Your task to perform on an android device: turn off location history Image 0: 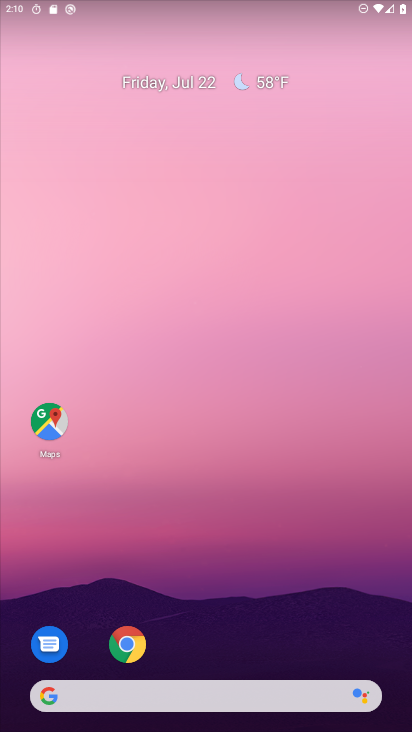
Step 0: drag from (210, 649) to (221, 265)
Your task to perform on an android device: turn off location history Image 1: 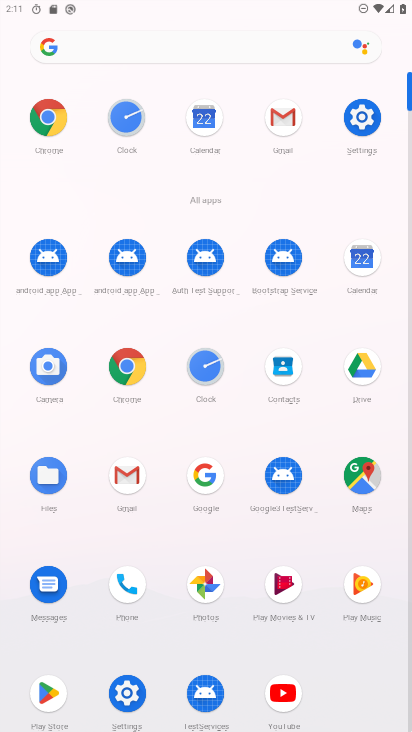
Step 1: click (354, 121)
Your task to perform on an android device: turn off location history Image 2: 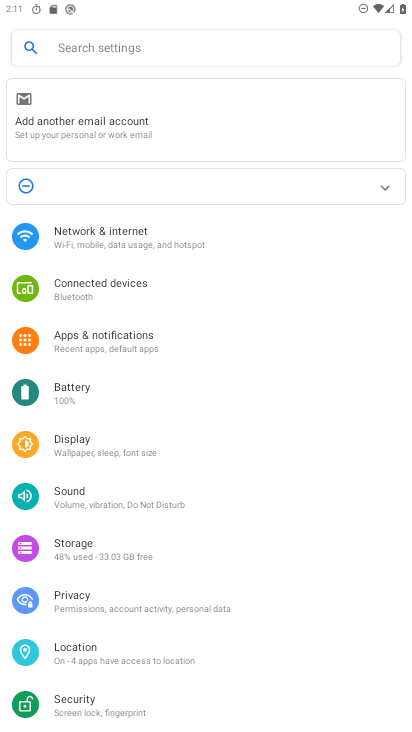
Step 2: click (86, 658)
Your task to perform on an android device: turn off location history Image 3: 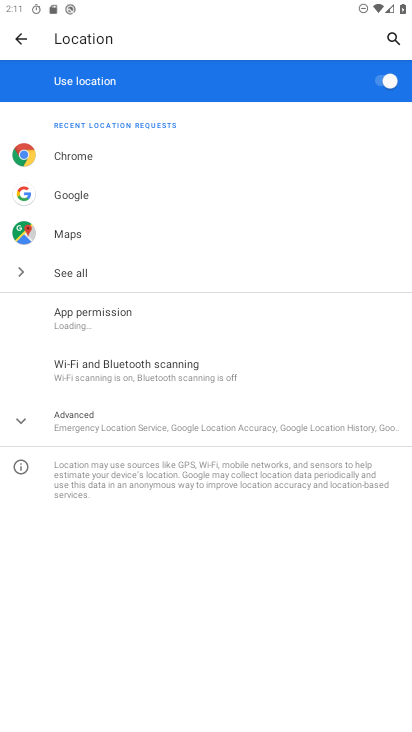
Step 3: click (154, 422)
Your task to perform on an android device: turn off location history Image 4: 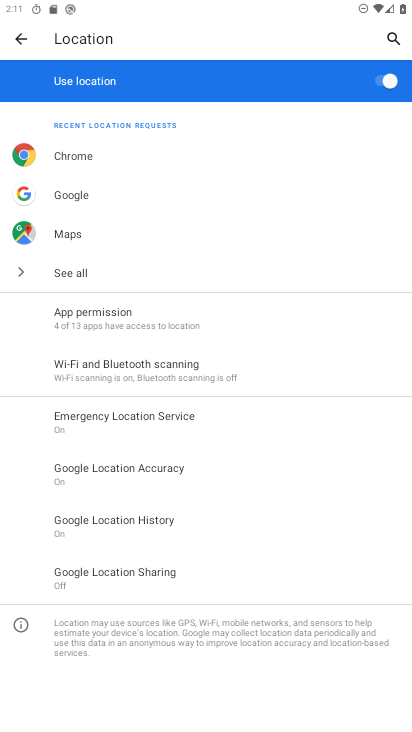
Step 4: click (197, 517)
Your task to perform on an android device: turn off location history Image 5: 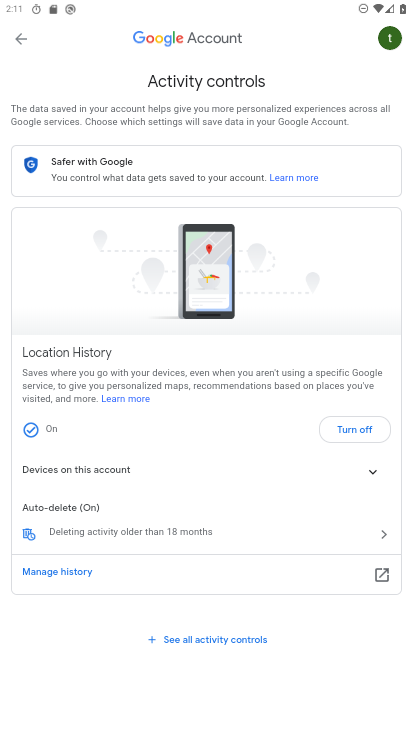
Step 5: click (336, 430)
Your task to perform on an android device: turn off location history Image 6: 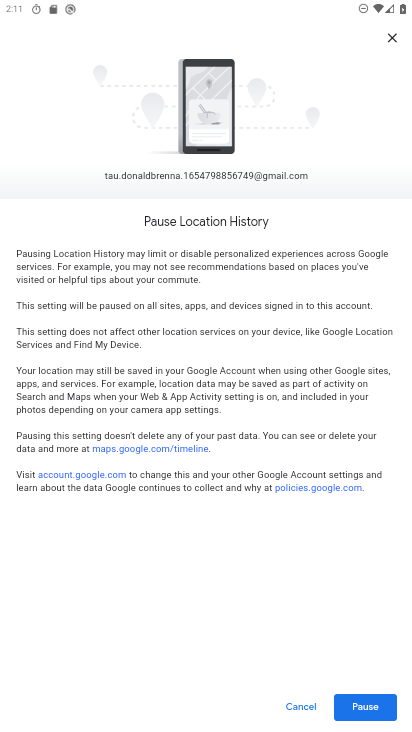
Step 6: click (358, 716)
Your task to perform on an android device: turn off location history Image 7: 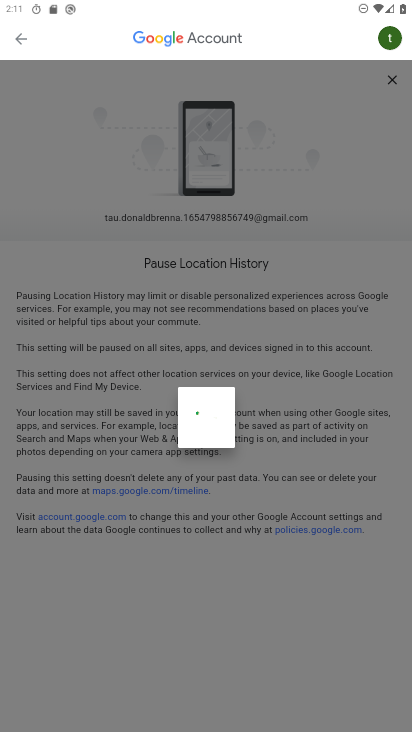
Step 7: click (384, 714)
Your task to perform on an android device: turn off location history Image 8: 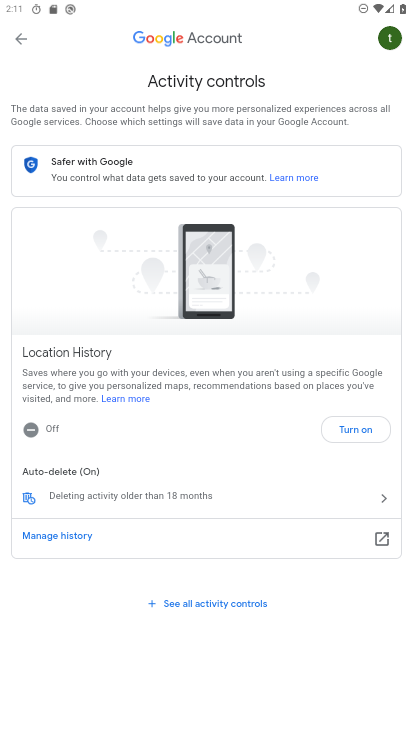
Step 8: task complete